Your task to perform on an android device: star an email in the gmail app Image 0: 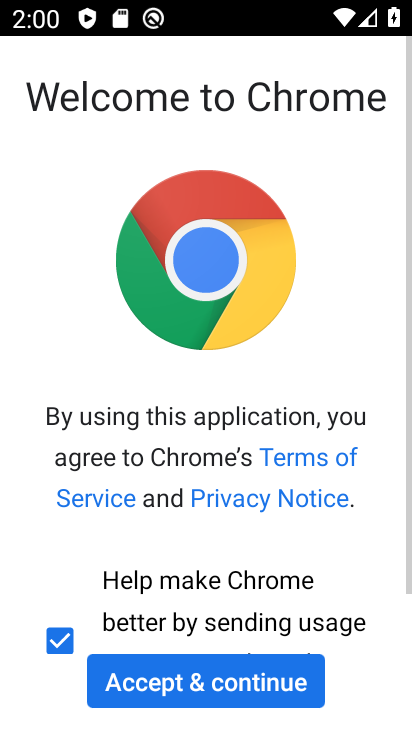
Step 0: press back button
Your task to perform on an android device: star an email in the gmail app Image 1: 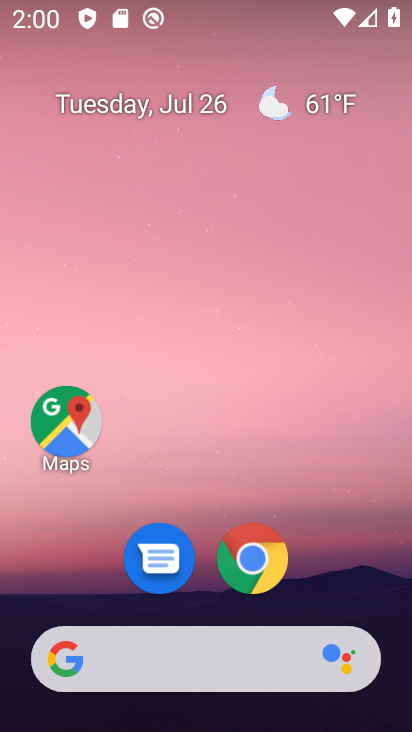
Step 1: drag from (97, 511) to (216, 20)
Your task to perform on an android device: star an email in the gmail app Image 2: 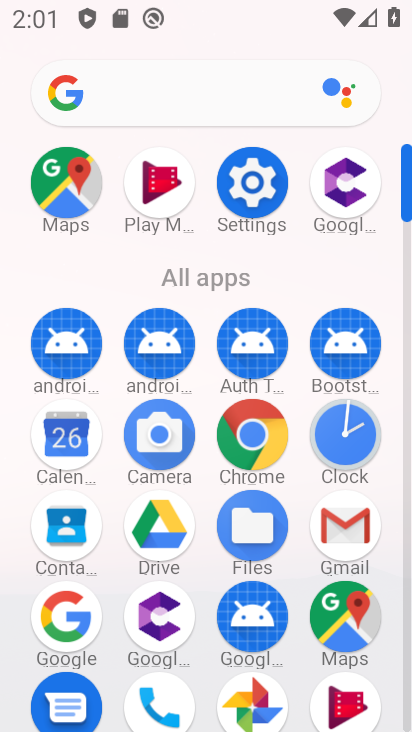
Step 2: click (350, 523)
Your task to perform on an android device: star an email in the gmail app Image 3: 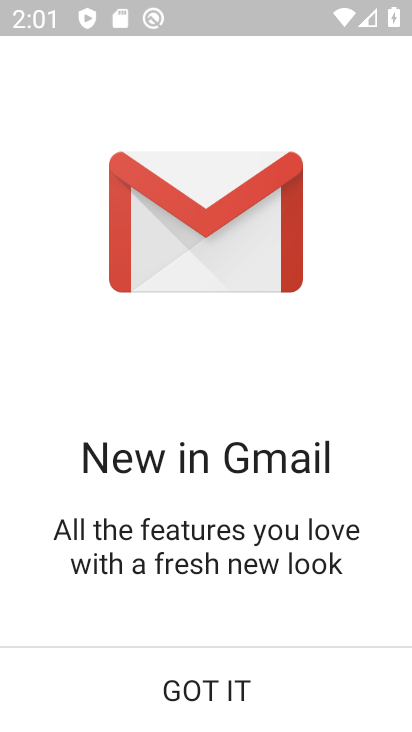
Step 3: click (217, 678)
Your task to perform on an android device: star an email in the gmail app Image 4: 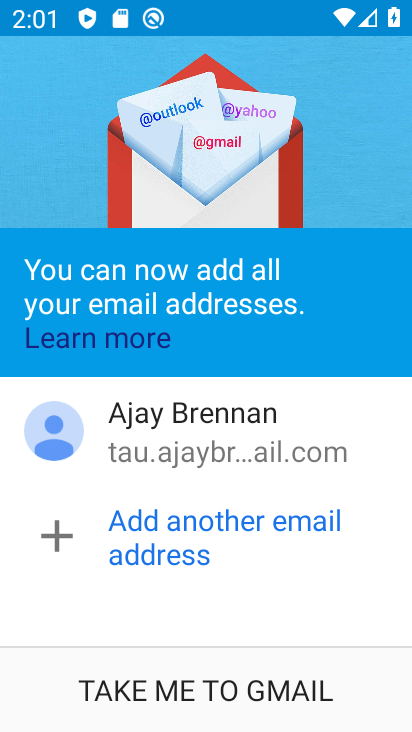
Step 4: click (217, 678)
Your task to perform on an android device: star an email in the gmail app Image 5: 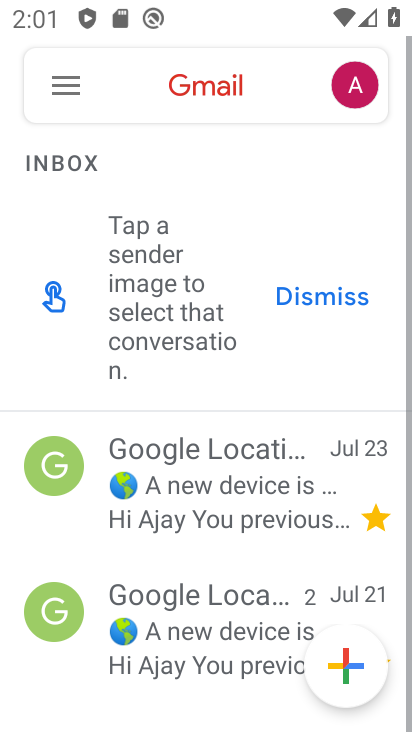
Step 5: click (46, 92)
Your task to perform on an android device: star an email in the gmail app Image 6: 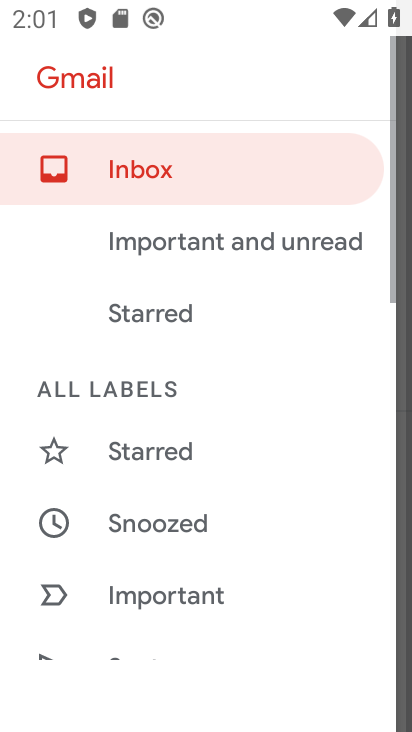
Step 6: task complete